Your task to perform on an android device: Go to ESPN.com Image 0: 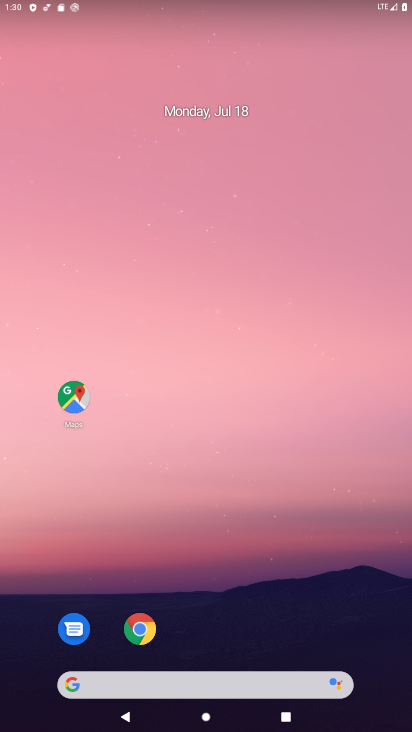
Step 0: press home button
Your task to perform on an android device: Go to ESPN.com Image 1: 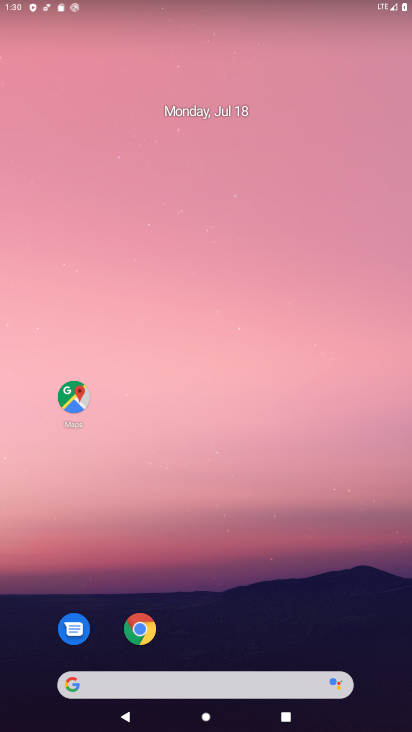
Step 1: click (142, 626)
Your task to perform on an android device: Go to ESPN.com Image 2: 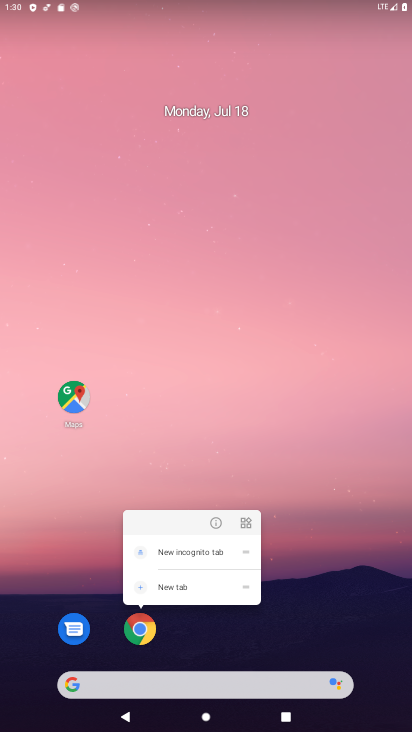
Step 2: click (137, 622)
Your task to perform on an android device: Go to ESPN.com Image 3: 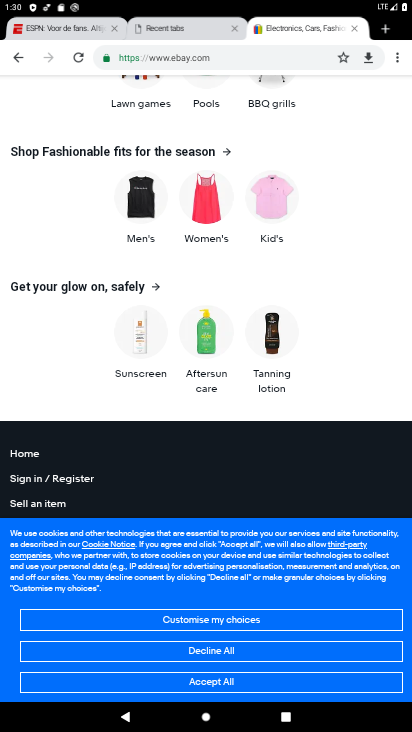
Step 3: click (382, 27)
Your task to perform on an android device: Go to ESPN.com Image 4: 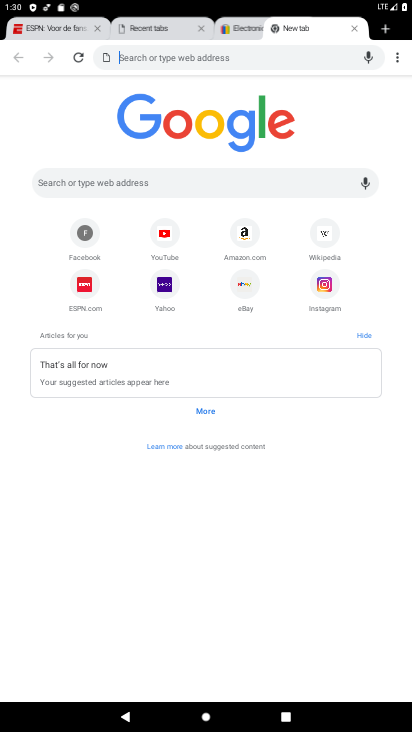
Step 4: click (78, 287)
Your task to perform on an android device: Go to ESPN.com Image 5: 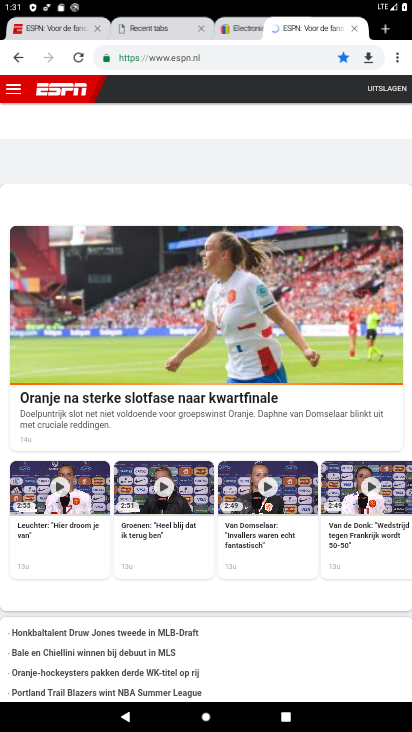
Step 5: task complete